Your task to perform on an android device: Open maps Image 0: 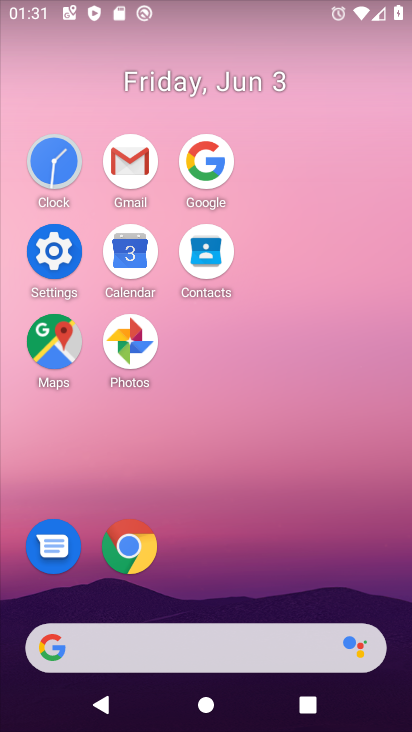
Step 0: click (67, 339)
Your task to perform on an android device: Open maps Image 1: 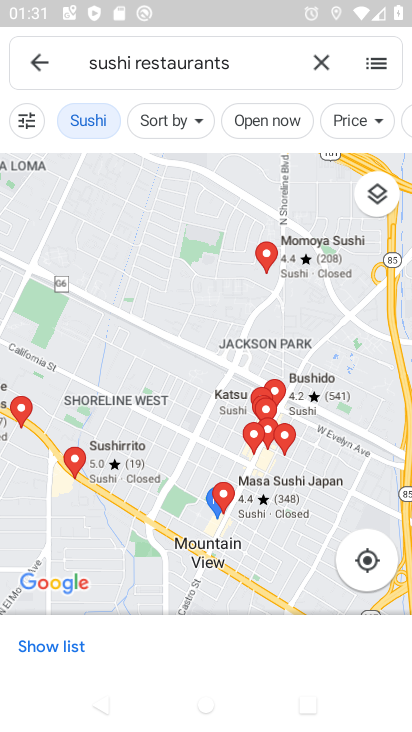
Step 1: task complete